Your task to perform on an android device: Search for usb-c to usb-b on costco.com, select the first entry, add it to the cart, then select checkout. Image 0: 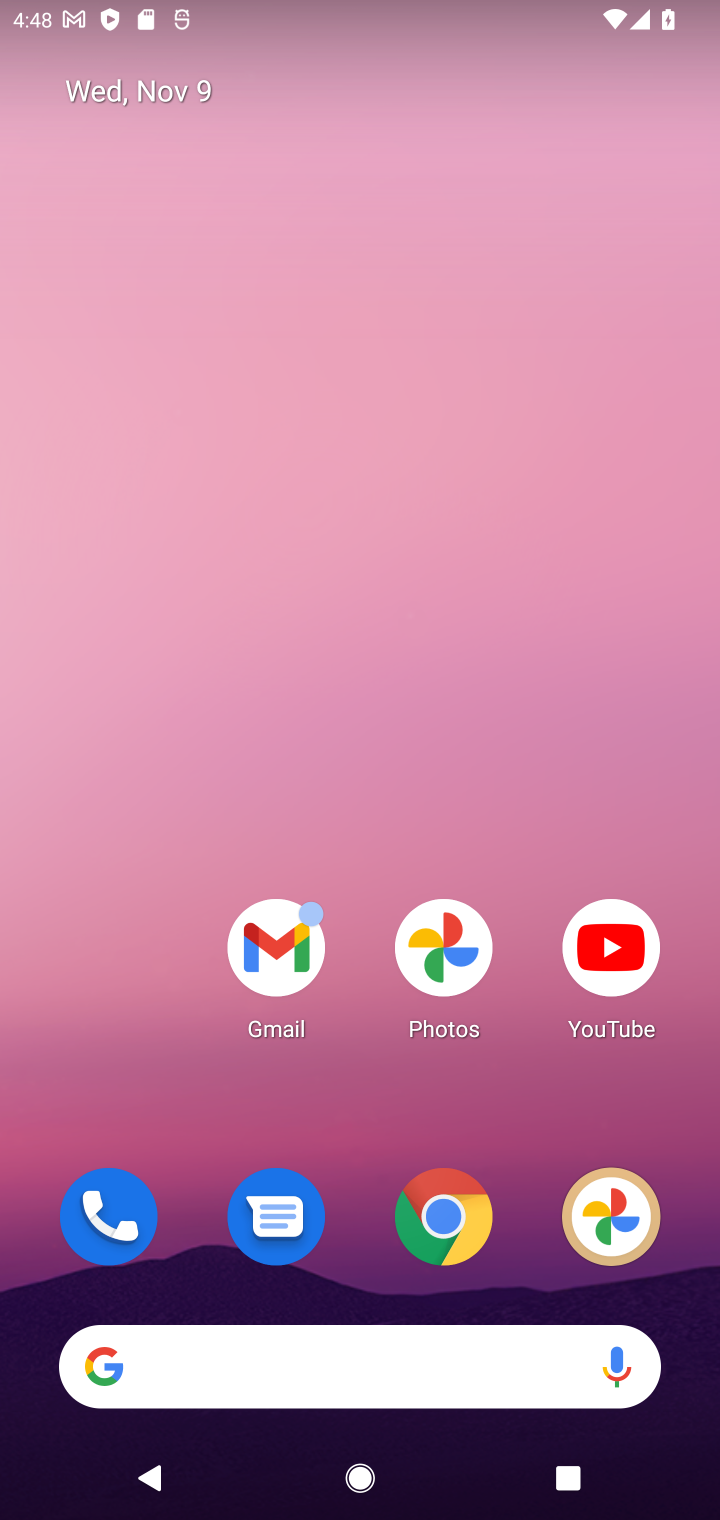
Step 0: drag from (367, 1066) to (374, 243)
Your task to perform on an android device: Search for usb-c to usb-b on costco.com, select the first entry, add it to the cart, then select checkout. Image 1: 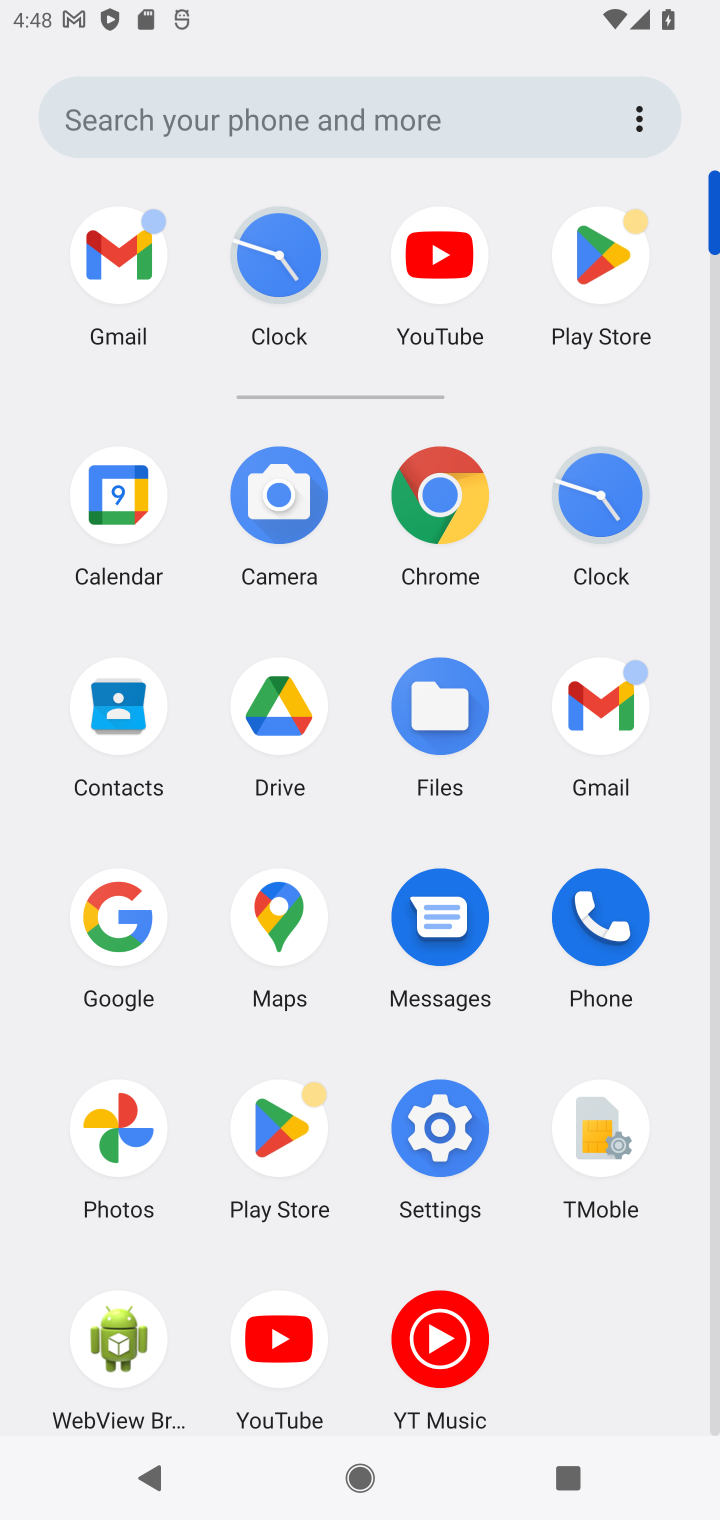
Step 1: click (437, 495)
Your task to perform on an android device: Search for usb-c to usb-b on costco.com, select the first entry, add it to the cart, then select checkout. Image 2: 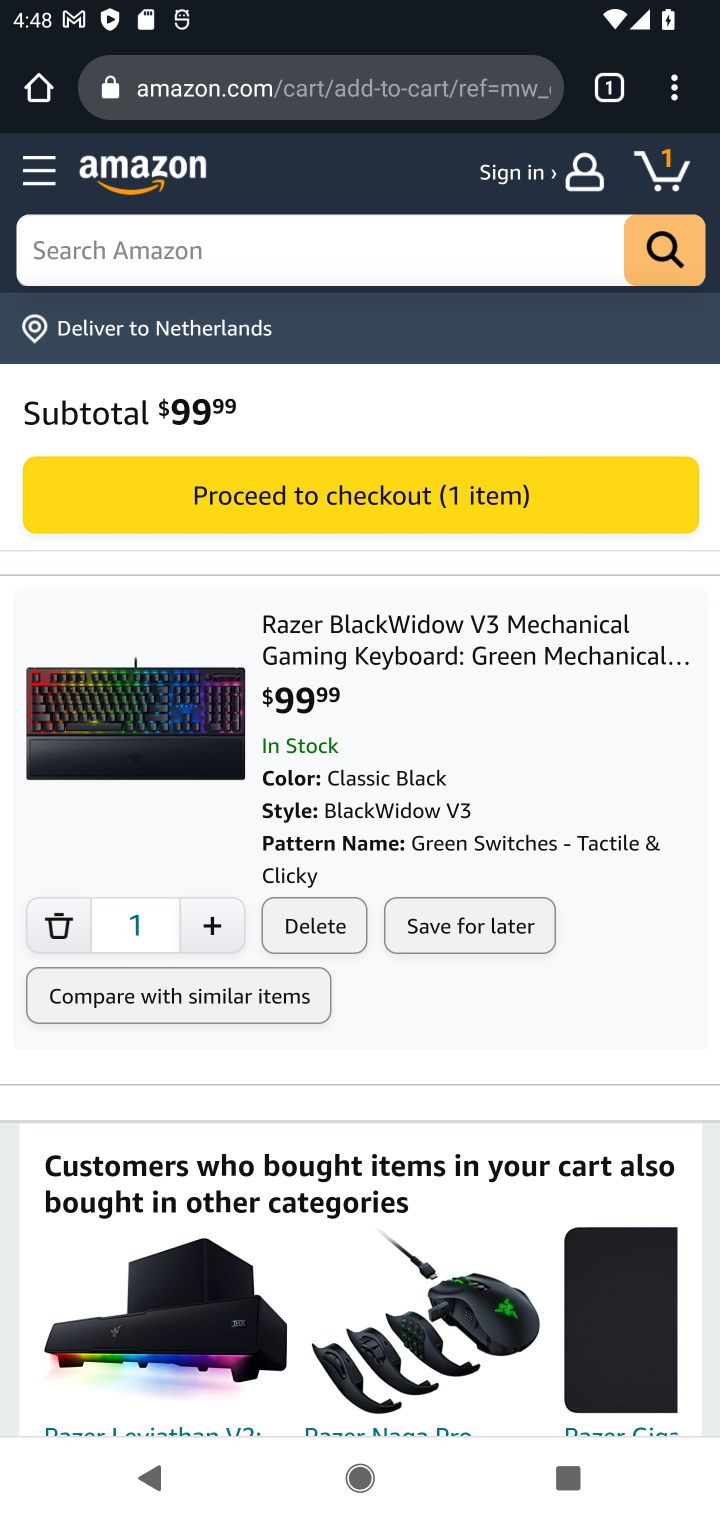
Step 2: click (364, 95)
Your task to perform on an android device: Search for usb-c to usb-b on costco.com, select the first entry, add it to the cart, then select checkout. Image 3: 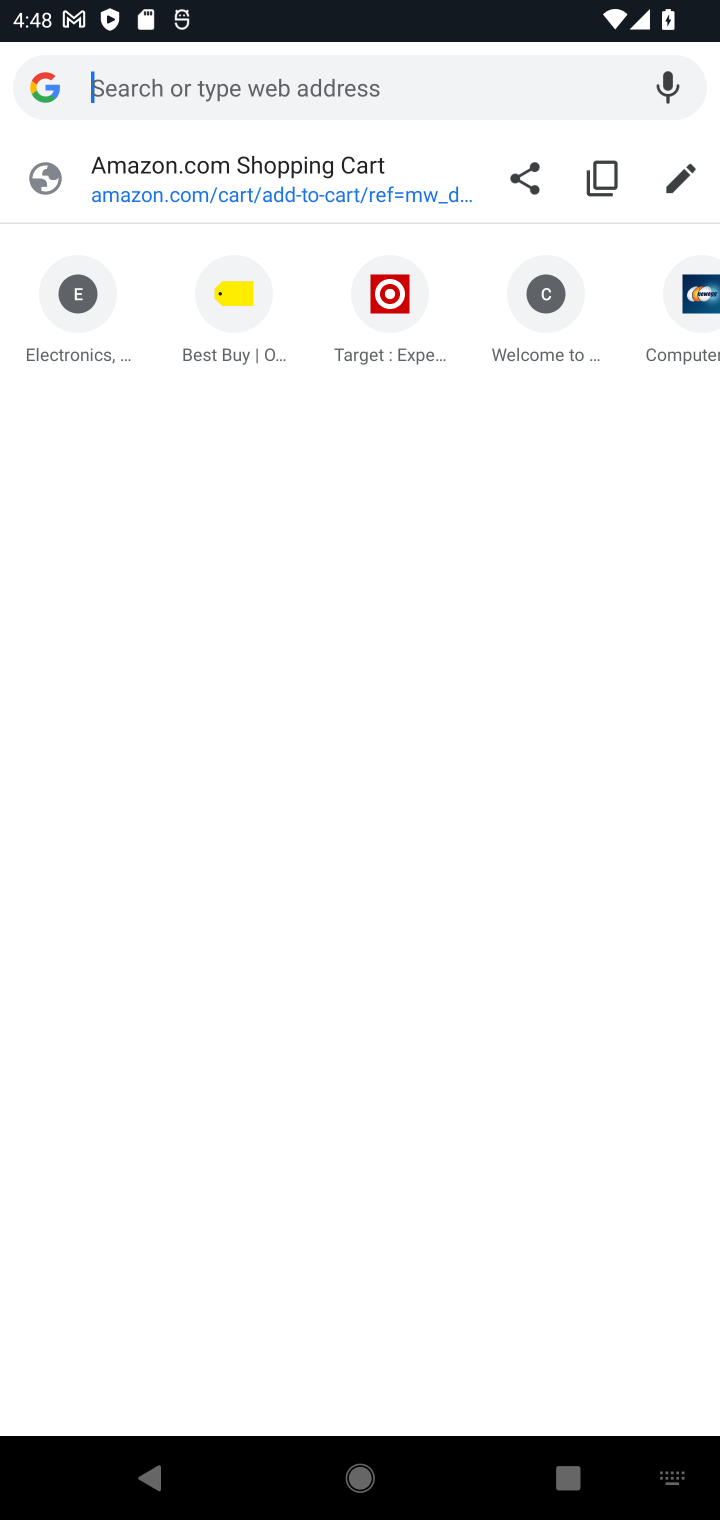
Step 3: type "costco.com"
Your task to perform on an android device: Search for usb-c to usb-b on costco.com, select the first entry, add it to the cart, then select checkout. Image 4: 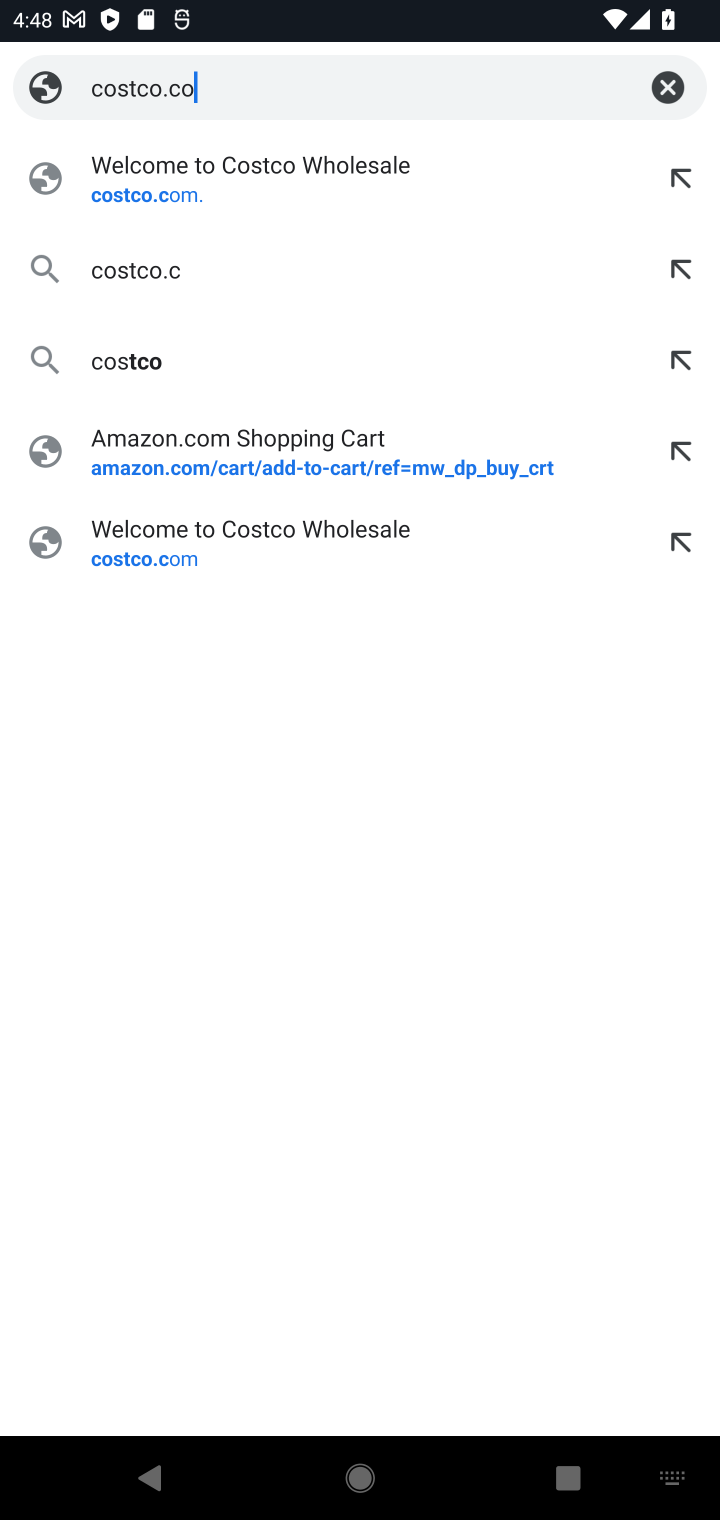
Step 4: press enter
Your task to perform on an android device: Search for usb-c to usb-b on costco.com, select the first entry, add it to the cart, then select checkout. Image 5: 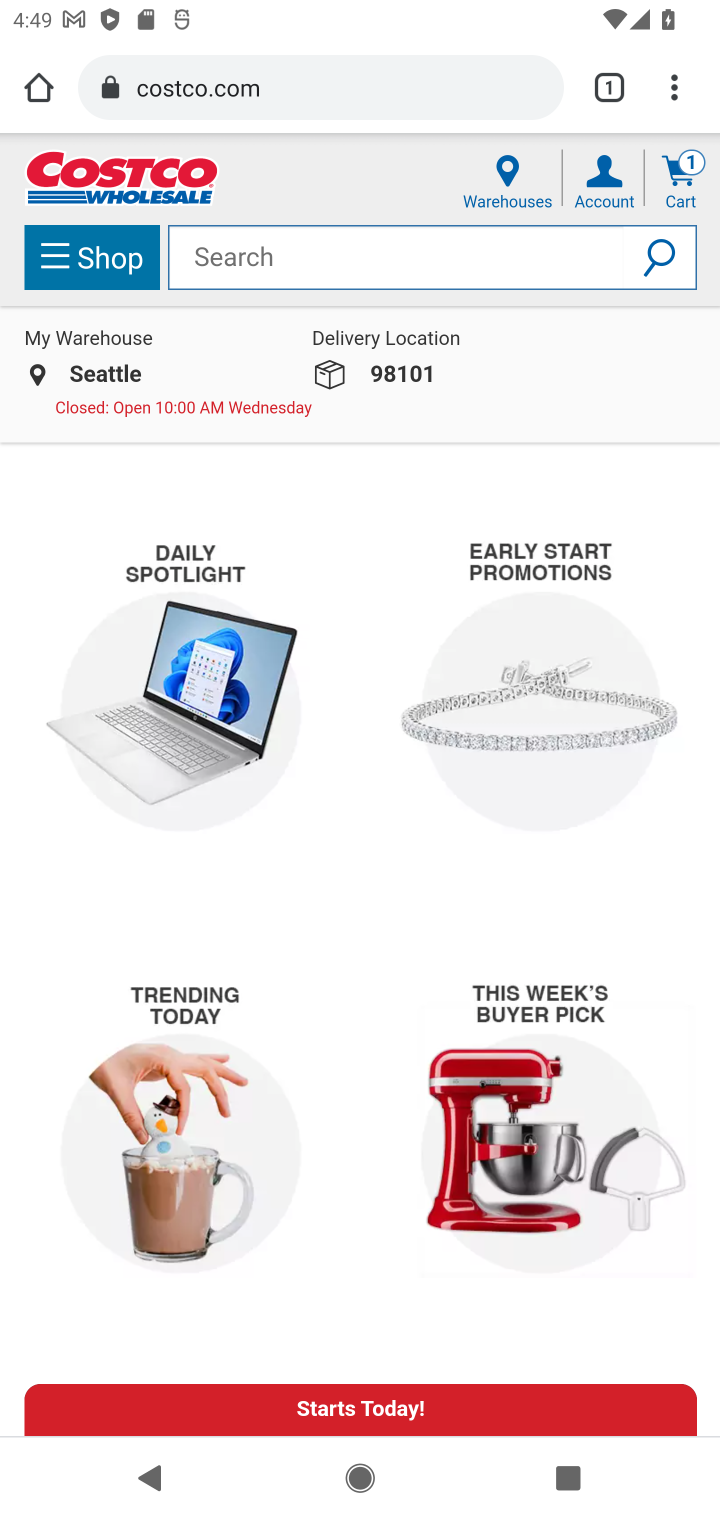
Step 5: click (400, 261)
Your task to perform on an android device: Search for usb-c to usb-b on costco.com, select the first entry, add it to the cart, then select checkout. Image 6: 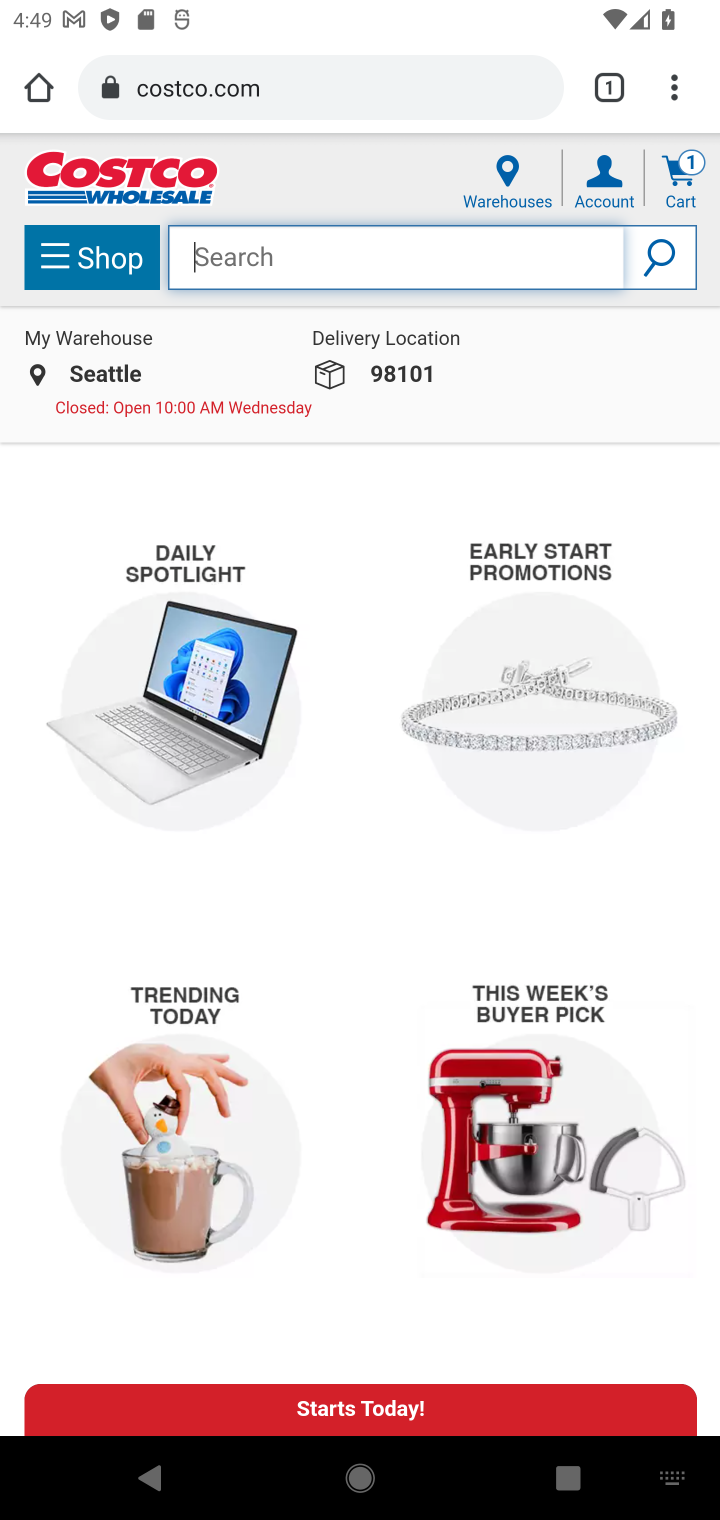
Step 6: type "usb-c to usb-b"
Your task to perform on an android device: Search for usb-c to usb-b on costco.com, select the first entry, add it to the cart, then select checkout. Image 7: 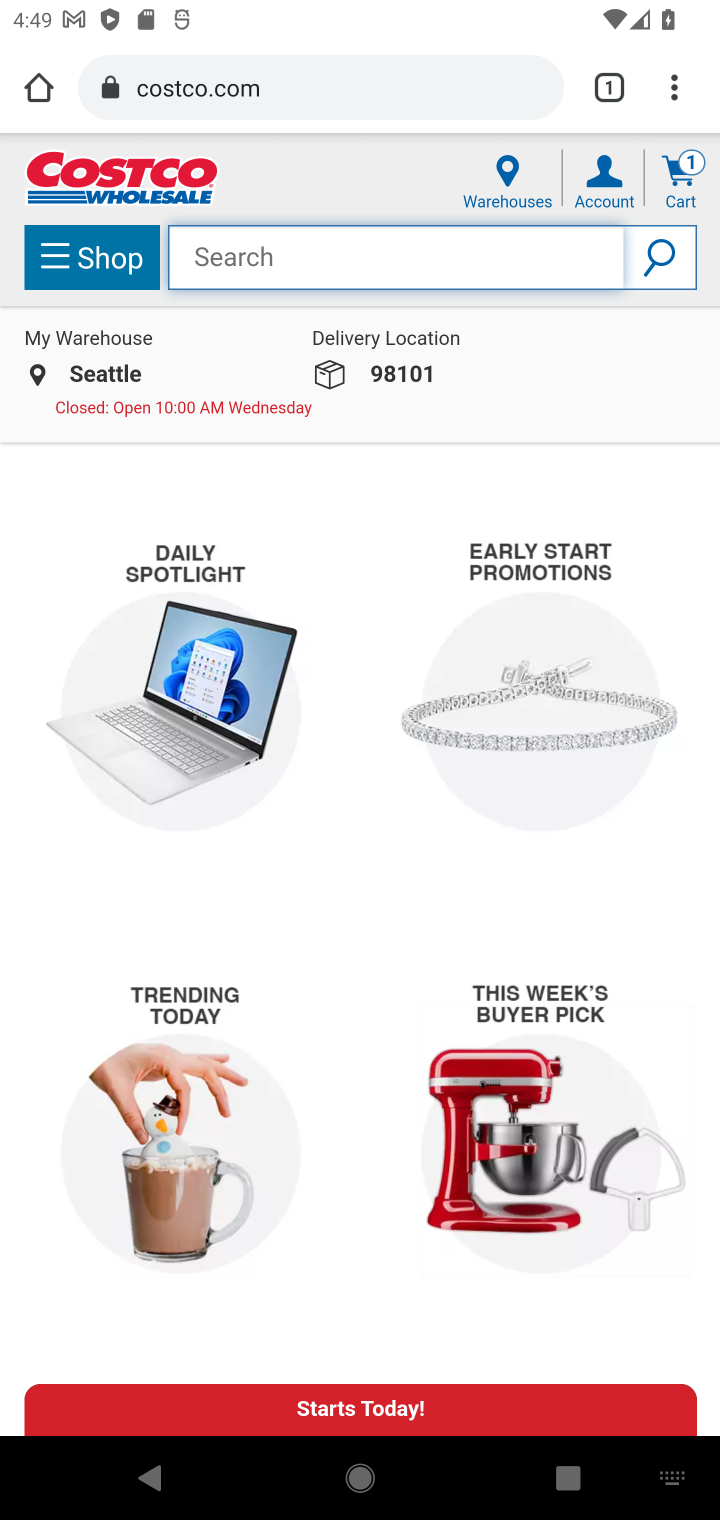
Step 7: press enter
Your task to perform on an android device: Search for usb-c to usb-b on costco.com, select the first entry, add it to the cart, then select checkout. Image 8: 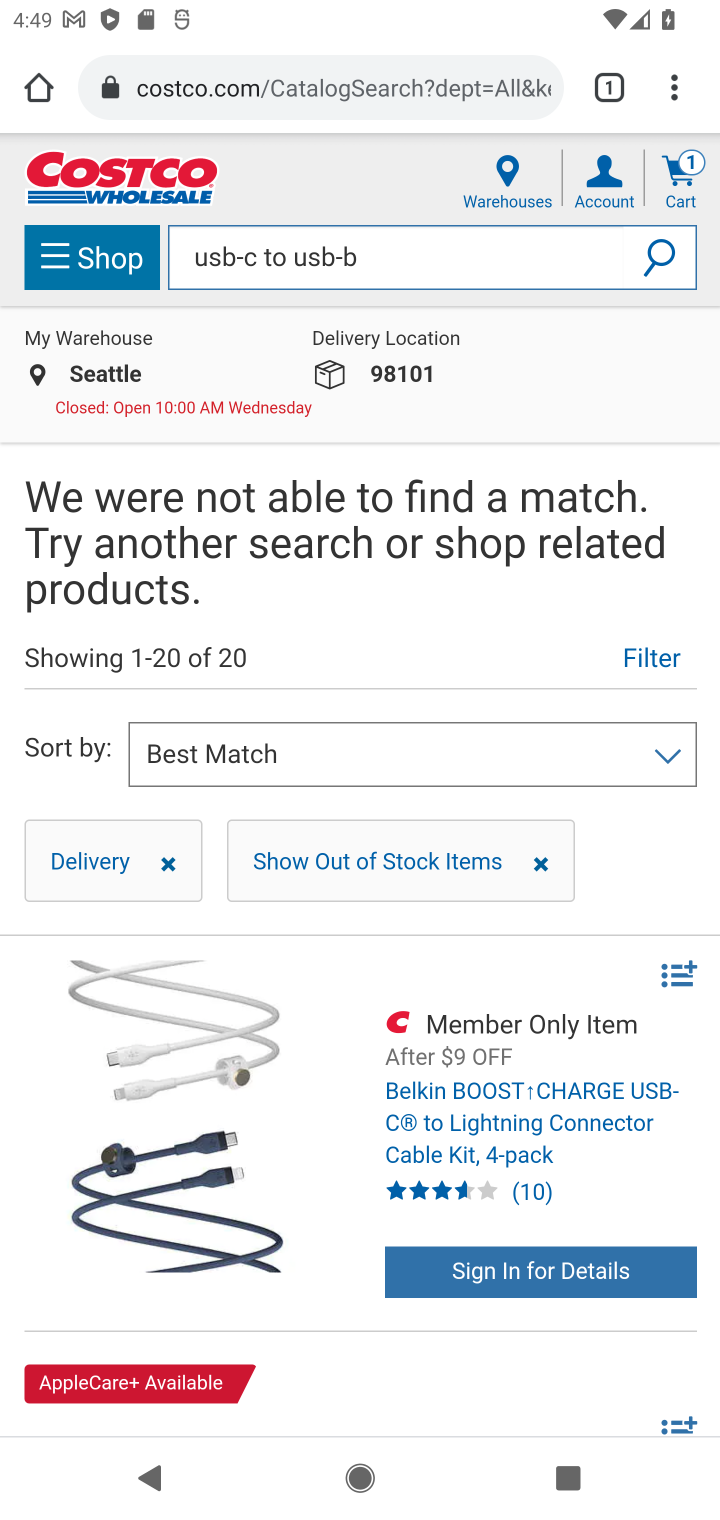
Step 8: drag from (360, 1116) to (361, 631)
Your task to perform on an android device: Search for usb-c to usb-b on costco.com, select the first entry, add it to the cart, then select checkout. Image 9: 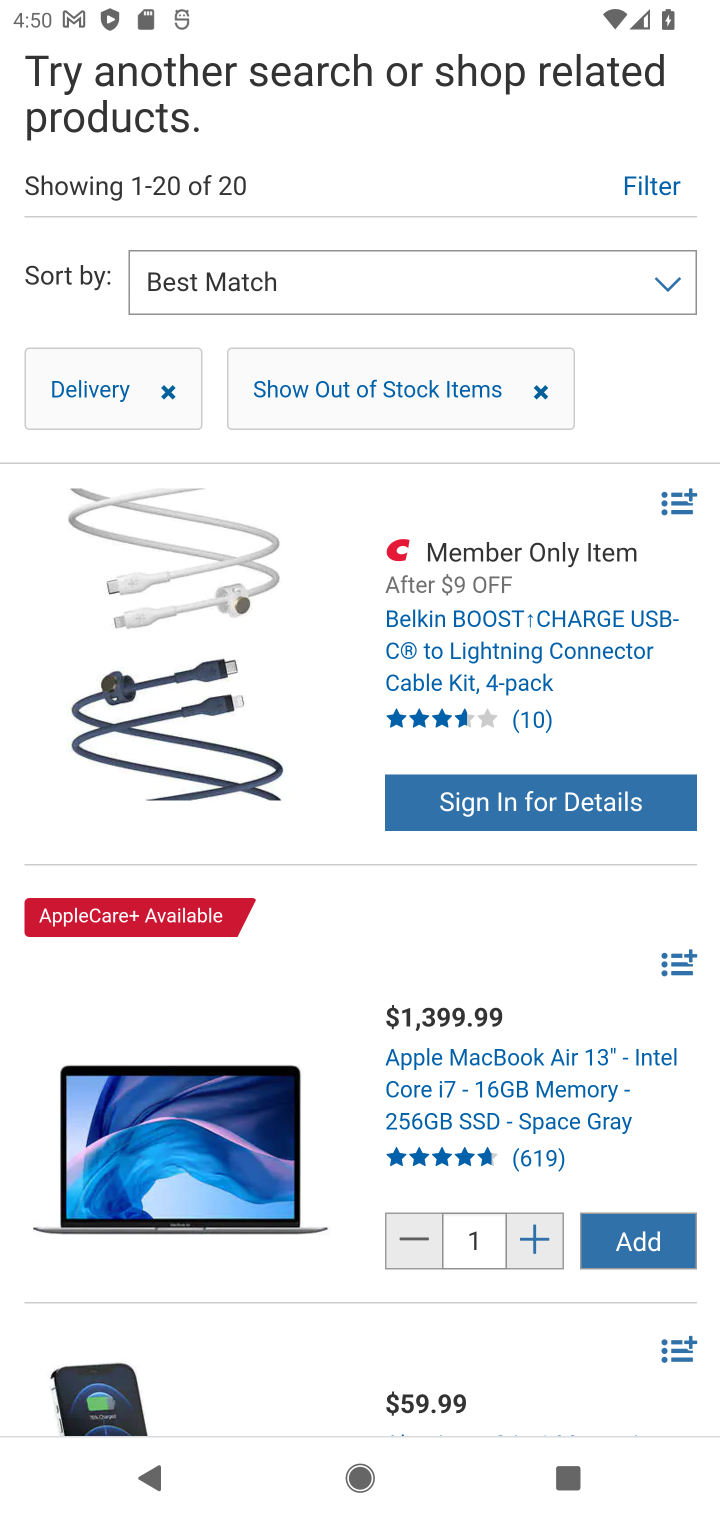
Step 9: drag from (291, 518) to (325, 795)
Your task to perform on an android device: Search for usb-c to usb-b on costco.com, select the first entry, add it to the cart, then select checkout. Image 10: 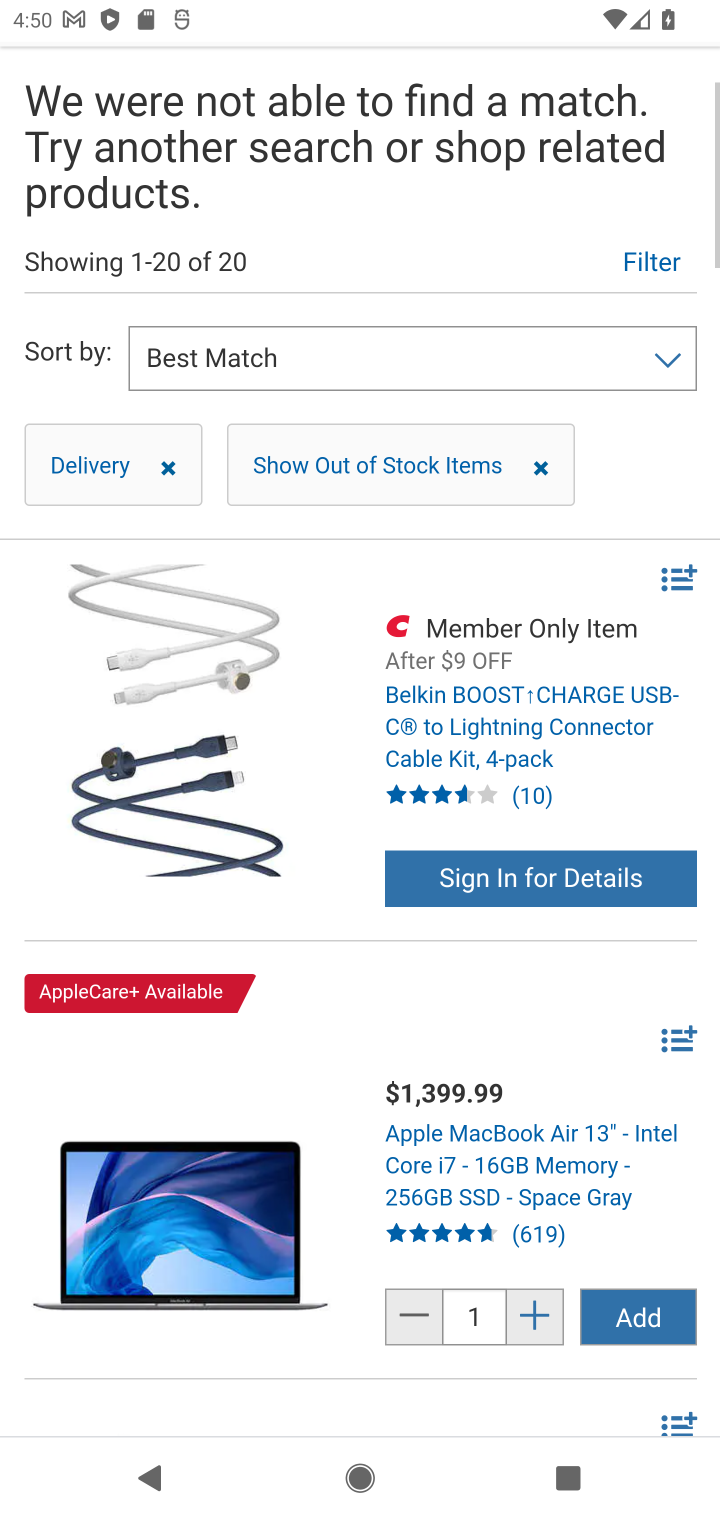
Step 10: click (455, 786)
Your task to perform on an android device: Search for usb-c to usb-b on costco.com, select the first entry, add it to the cart, then select checkout. Image 11: 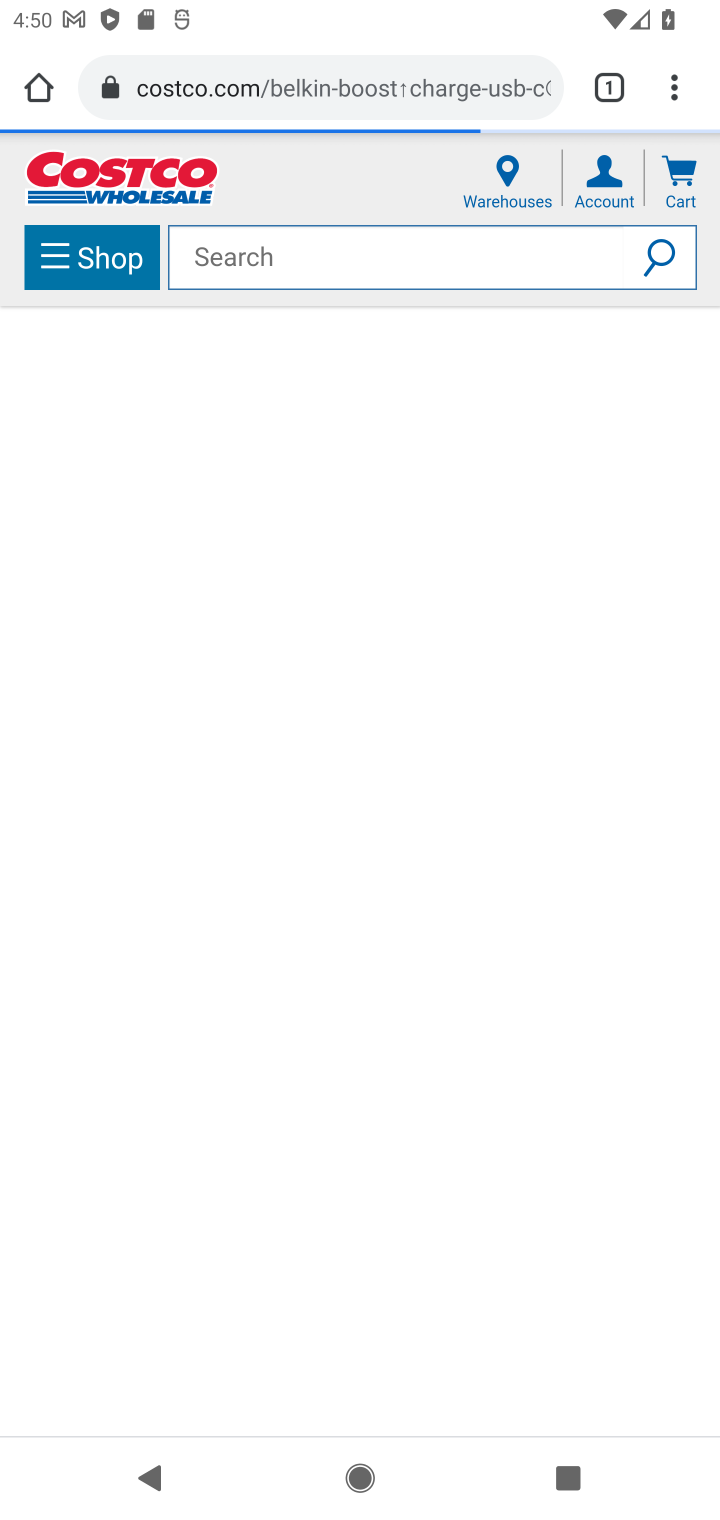
Step 11: click (470, 750)
Your task to perform on an android device: Search for usb-c to usb-b on costco.com, select the first entry, add it to the cart, then select checkout. Image 12: 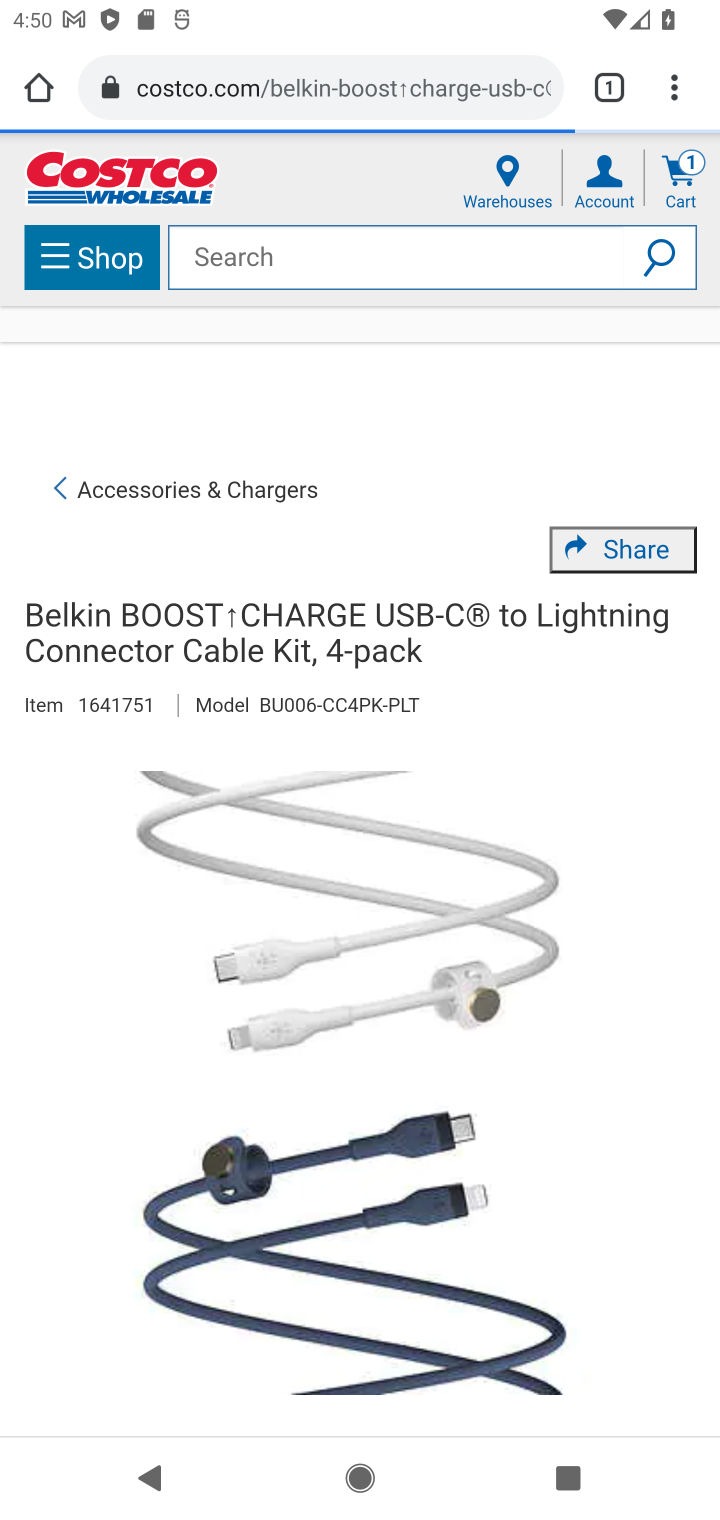
Step 12: task complete